Your task to perform on an android device: open app "VLC for Android" (install if not already installed) Image 0: 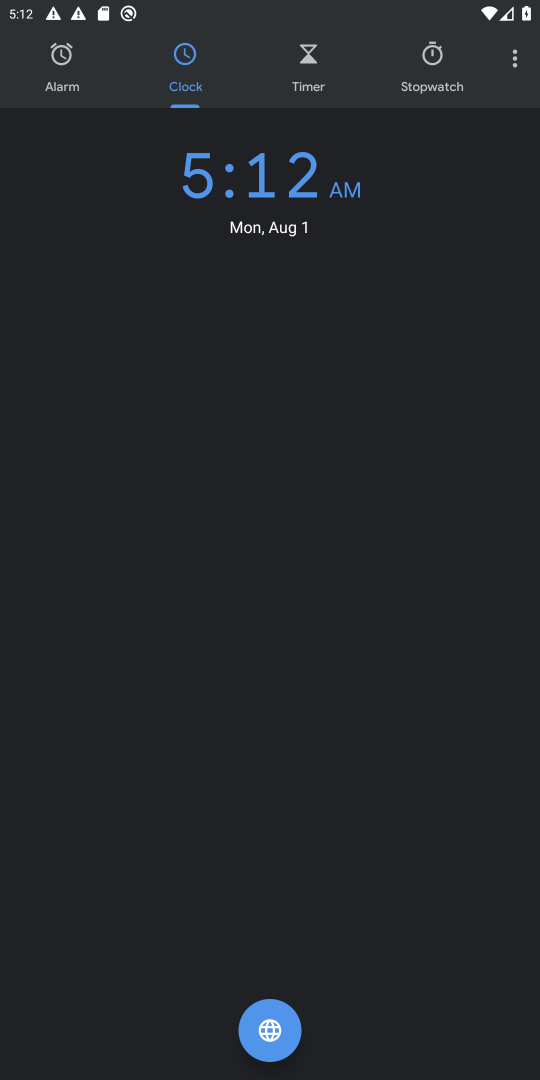
Step 0: press home button
Your task to perform on an android device: open app "VLC for Android" (install if not already installed) Image 1: 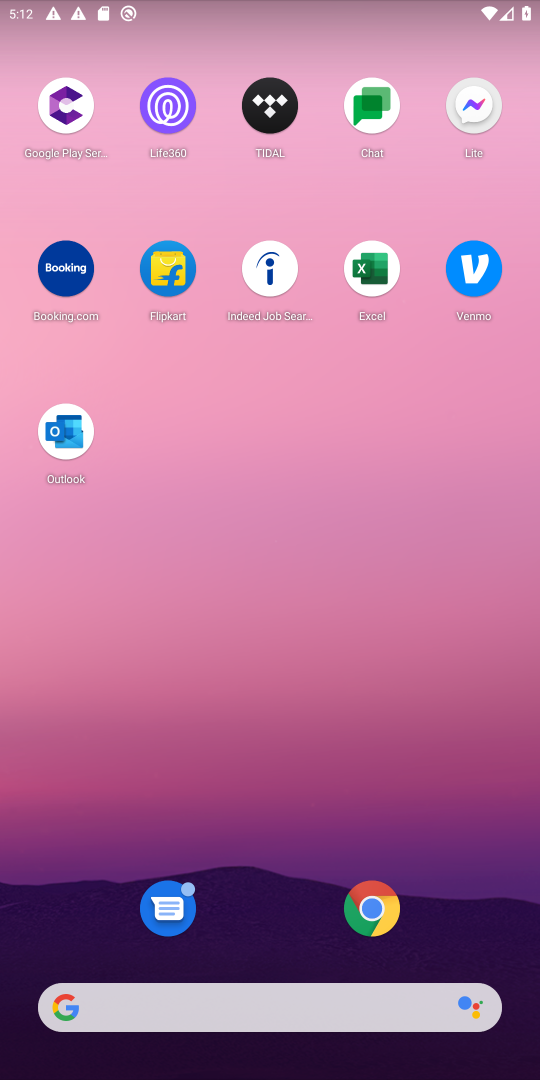
Step 1: drag from (252, 777) to (314, 18)
Your task to perform on an android device: open app "VLC for Android" (install if not already installed) Image 2: 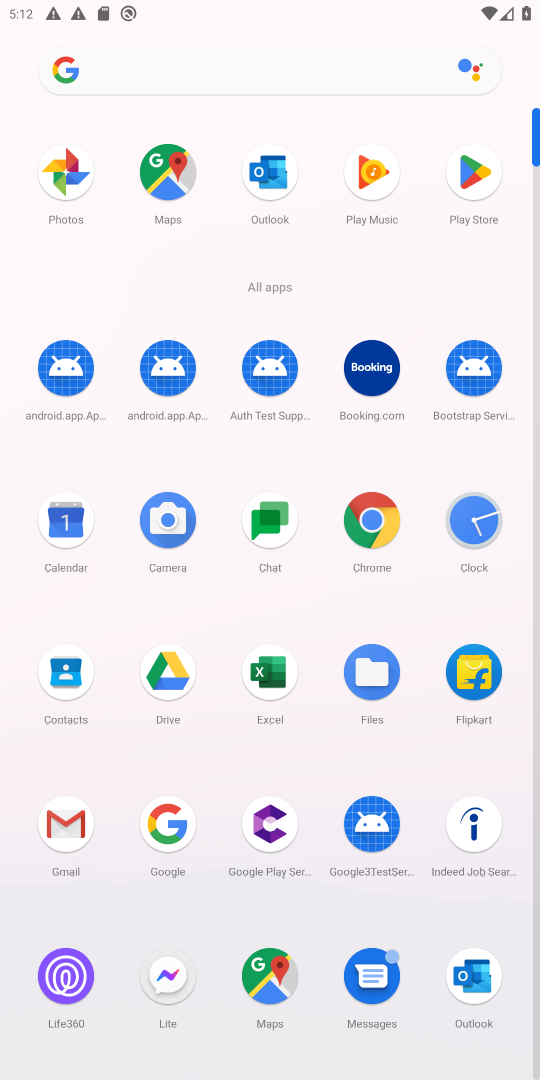
Step 2: click (480, 173)
Your task to perform on an android device: open app "VLC for Android" (install if not already installed) Image 3: 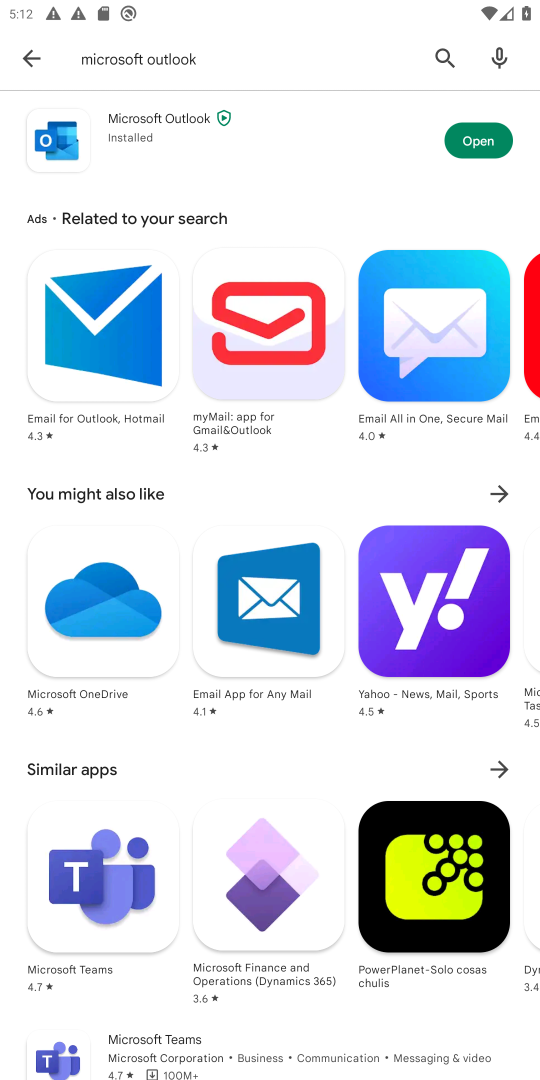
Step 3: click (28, 57)
Your task to perform on an android device: open app "VLC for Android" (install if not already installed) Image 4: 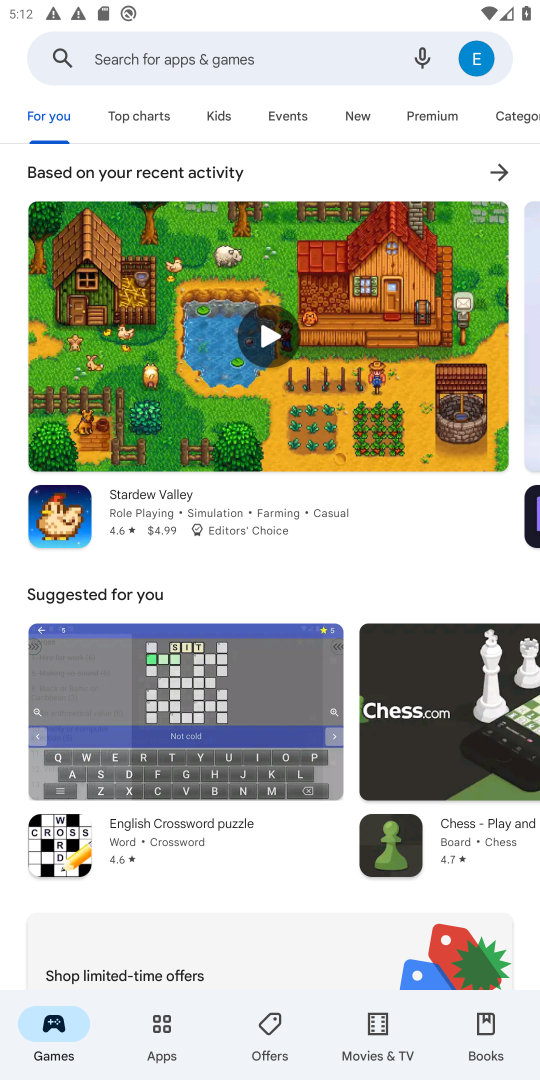
Step 4: click (181, 45)
Your task to perform on an android device: open app "VLC for Android" (install if not already installed) Image 5: 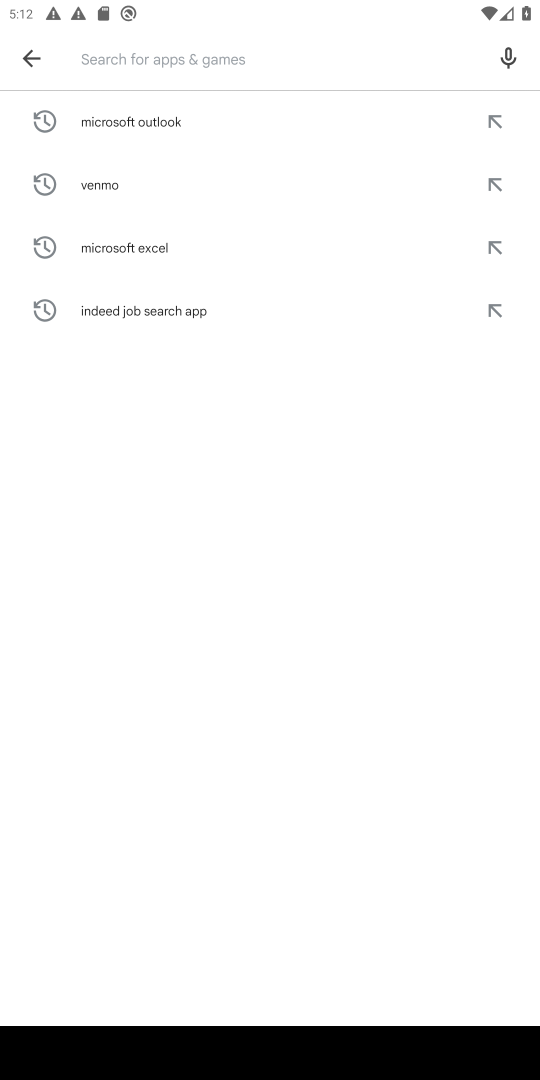
Step 5: type "VLC for Android"
Your task to perform on an android device: open app "VLC for Android" (install if not already installed) Image 6: 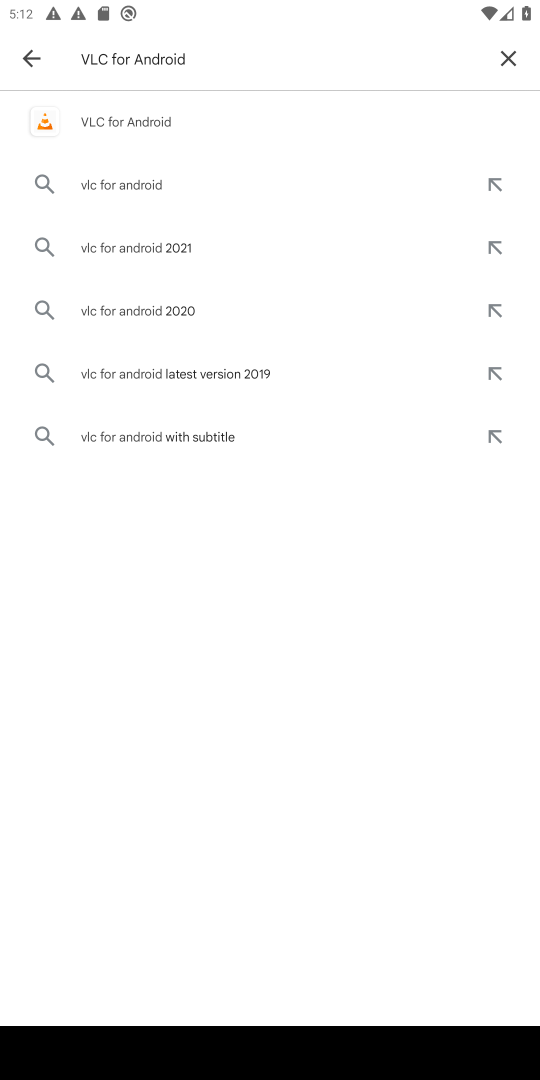
Step 6: click (132, 113)
Your task to perform on an android device: open app "VLC for Android" (install if not already installed) Image 7: 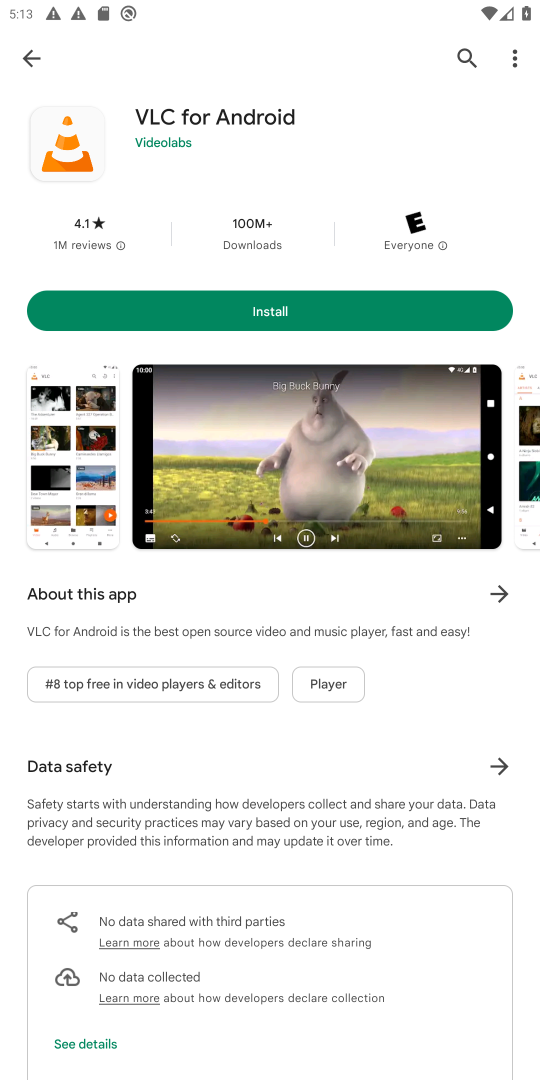
Step 7: click (282, 314)
Your task to perform on an android device: open app "VLC for Android" (install if not already installed) Image 8: 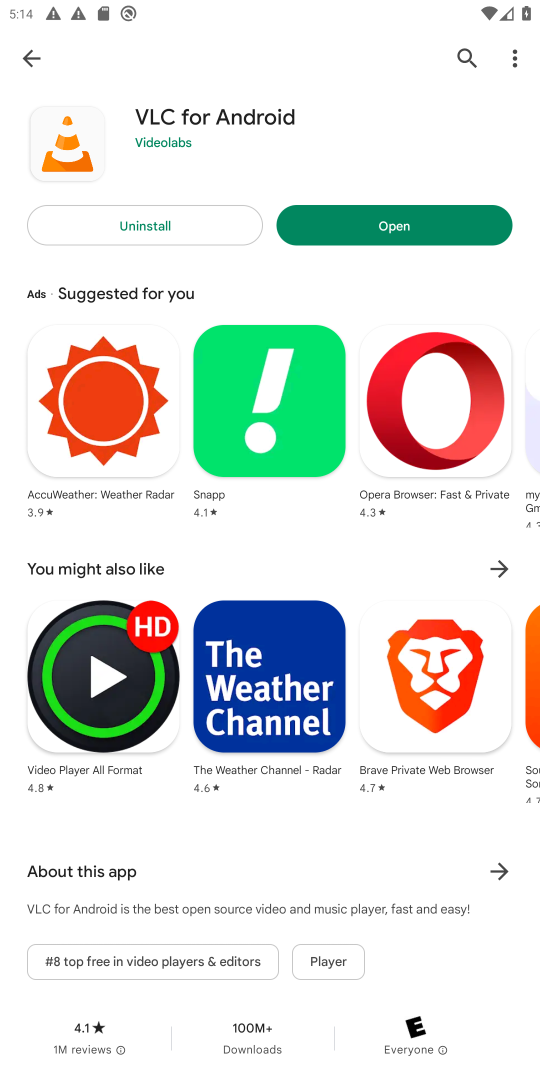
Step 8: click (406, 224)
Your task to perform on an android device: open app "VLC for Android" (install if not already installed) Image 9: 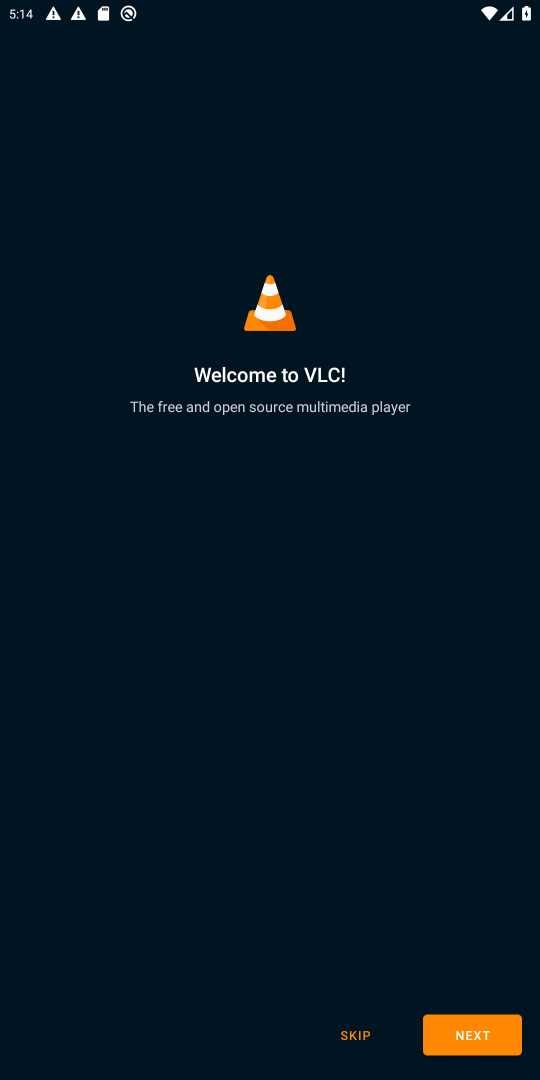
Step 9: click (462, 1032)
Your task to perform on an android device: open app "VLC for Android" (install if not already installed) Image 10: 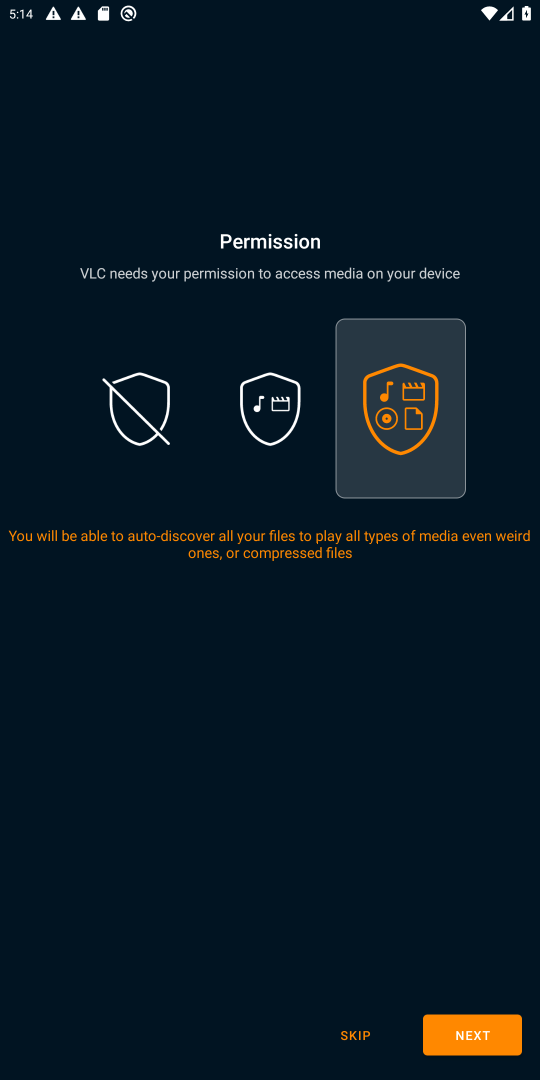
Step 10: task complete